Your task to perform on an android device: Do I have any events this weekend? Image 0: 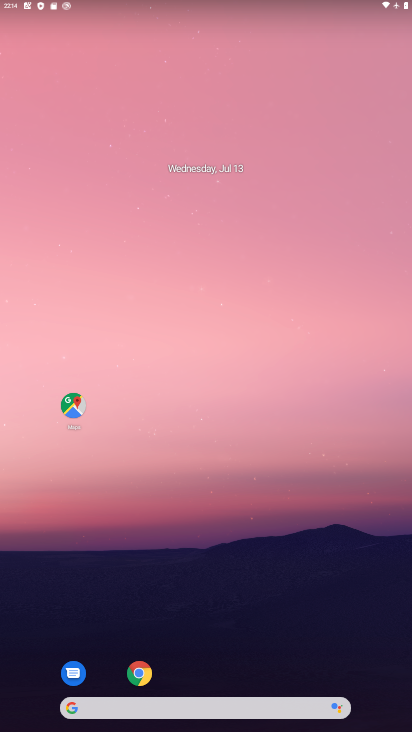
Step 0: drag from (224, 639) to (297, 126)
Your task to perform on an android device: Do I have any events this weekend? Image 1: 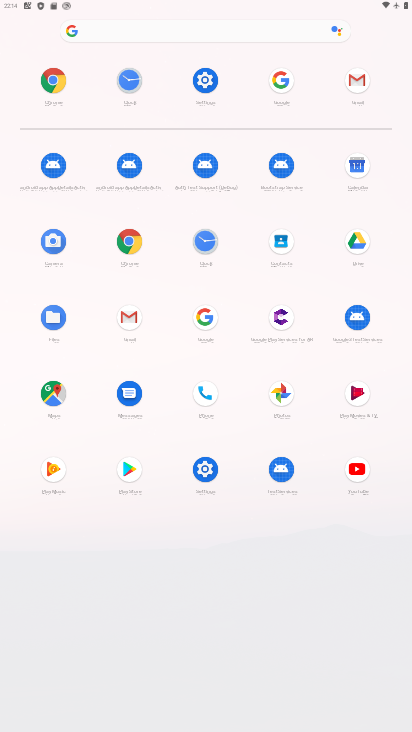
Step 1: click (351, 163)
Your task to perform on an android device: Do I have any events this weekend? Image 2: 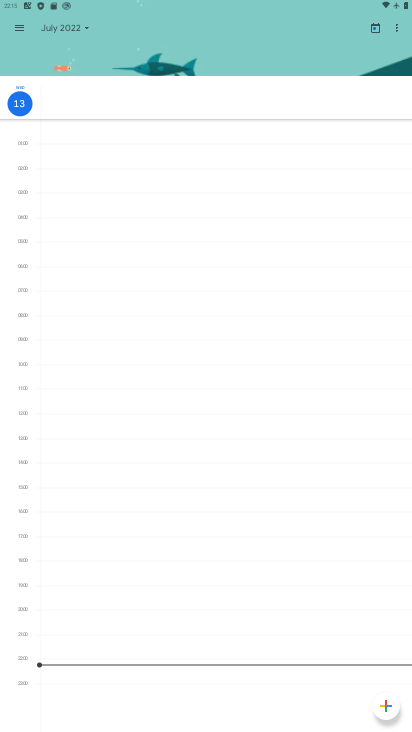
Step 2: click (87, 29)
Your task to perform on an android device: Do I have any events this weekend? Image 3: 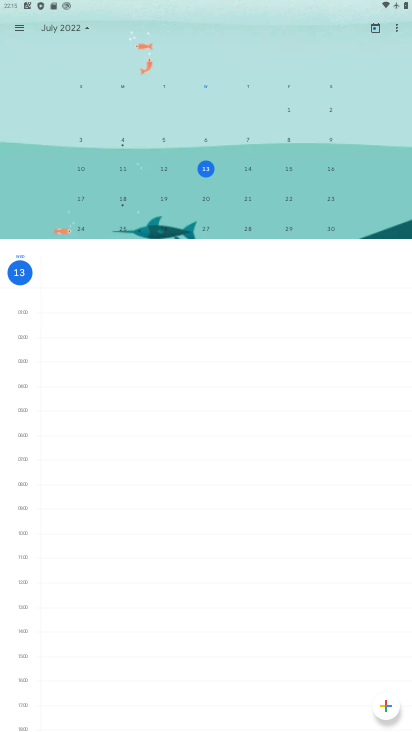
Step 3: task complete